Your task to perform on an android device: turn on translation in the chrome app Image 0: 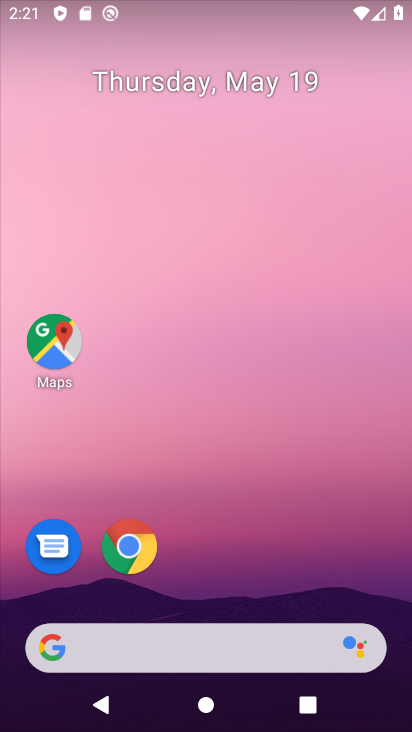
Step 0: click (136, 549)
Your task to perform on an android device: turn on translation in the chrome app Image 1: 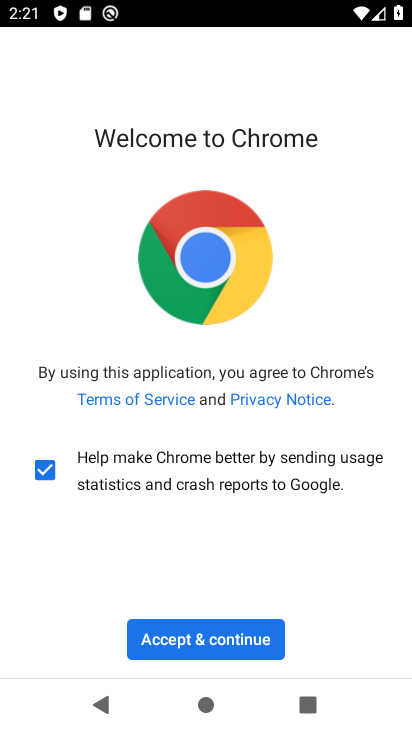
Step 1: click (213, 643)
Your task to perform on an android device: turn on translation in the chrome app Image 2: 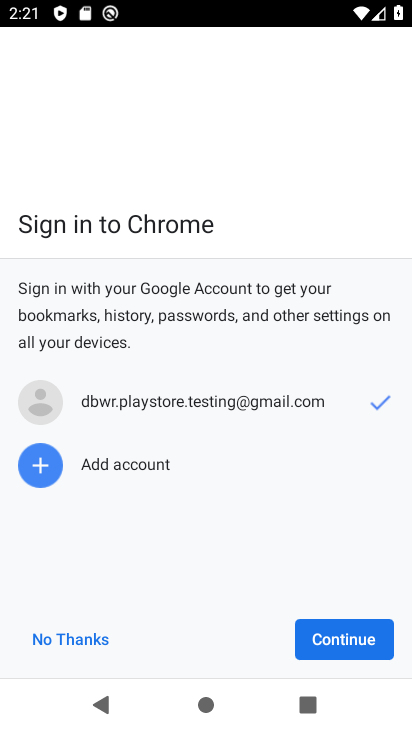
Step 2: click (346, 631)
Your task to perform on an android device: turn on translation in the chrome app Image 3: 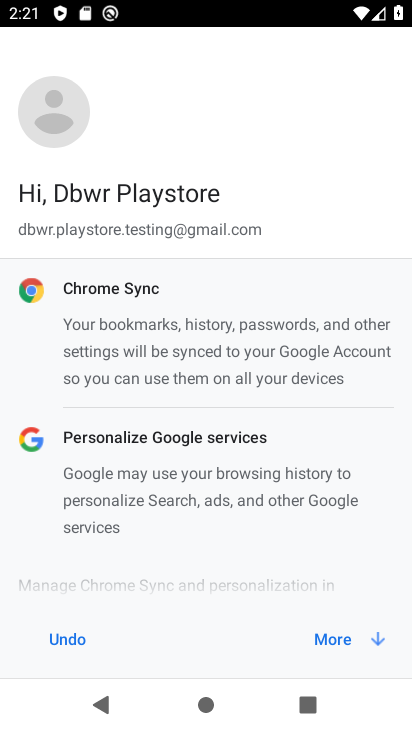
Step 3: click (343, 636)
Your task to perform on an android device: turn on translation in the chrome app Image 4: 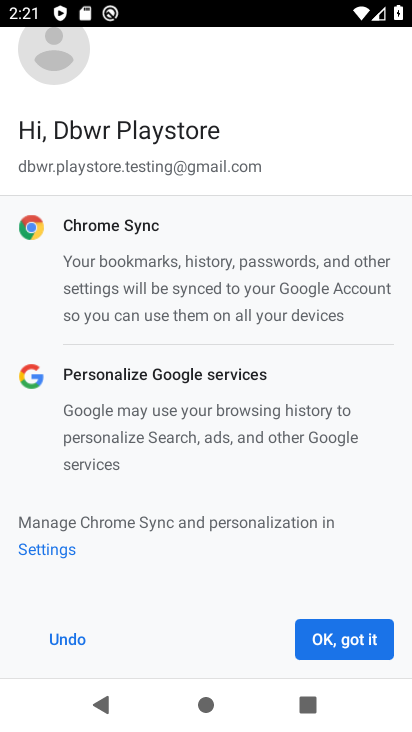
Step 4: click (343, 636)
Your task to perform on an android device: turn on translation in the chrome app Image 5: 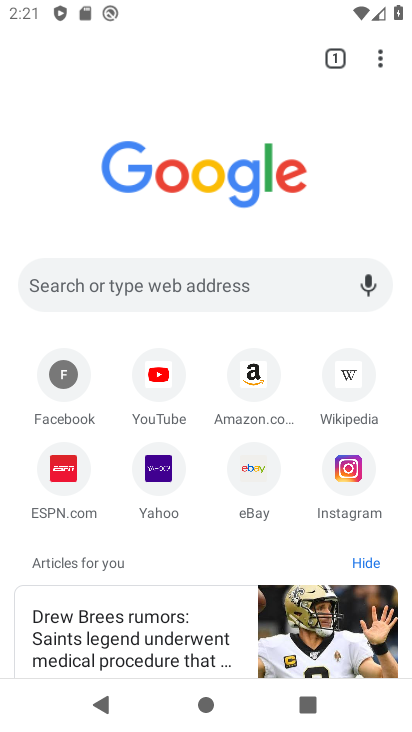
Step 5: drag from (381, 62) to (211, 486)
Your task to perform on an android device: turn on translation in the chrome app Image 6: 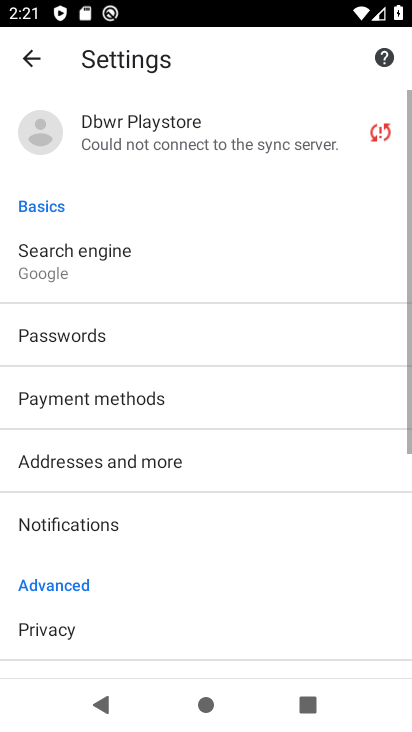
Step 6: drag from (175, 596) to (296, 200)
Your task to perform on an android device: turn on translation in the chrome app Image 7: 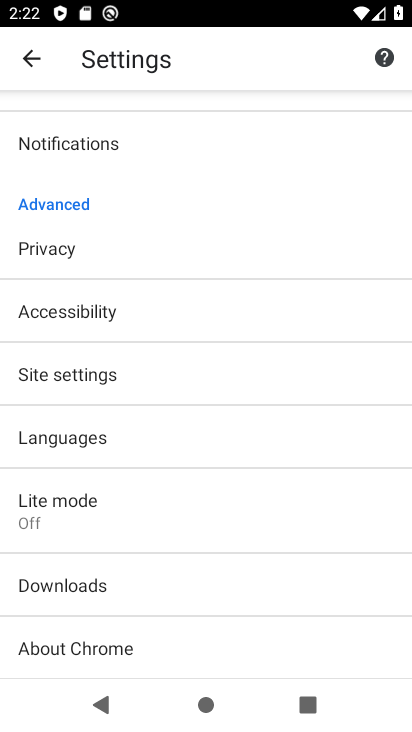
Step 7: click (99, 441)
Your task to perform on an android device: turn on translation in the chrome app Image 8: 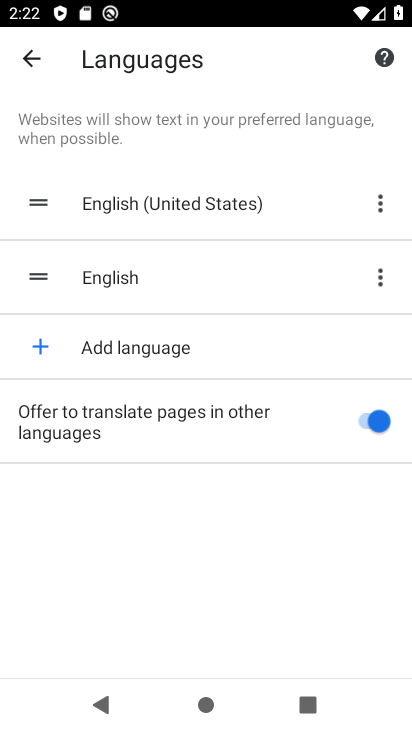
Step 8: task complete